Your task to perform on an android device: Open settings on Google Maps Image 0: 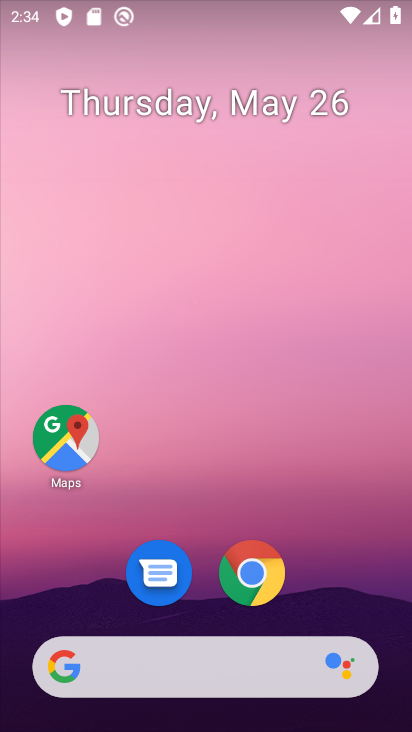
Step 0: press home button
Your task to perform on an android device: Open settings on Google Maps Image 1: 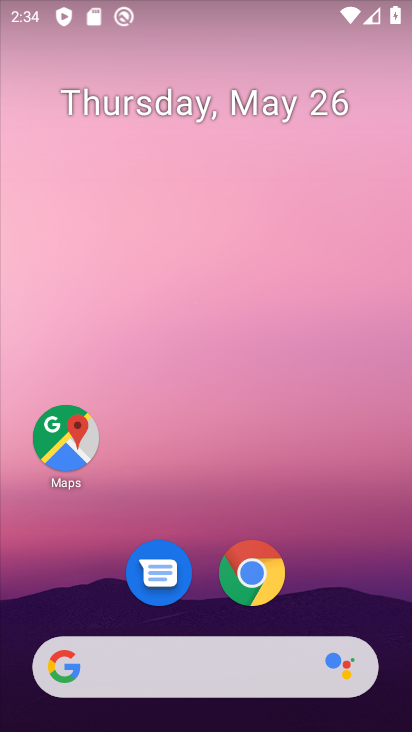
Step 1: click (84, 459)
Your task to perform on an android device: Open settings on Google Maps Image 2: 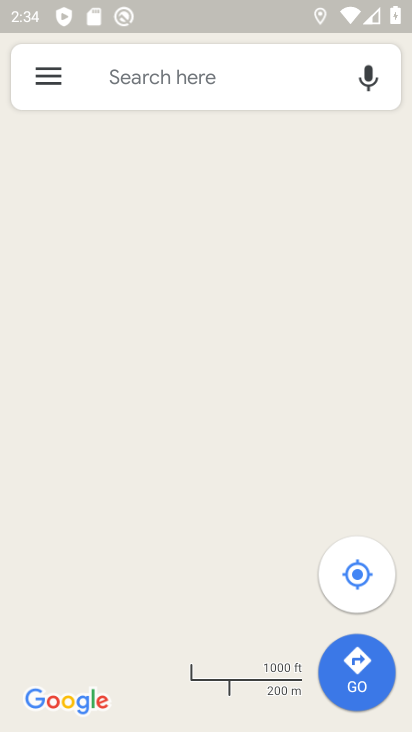
Step 2: click (51, 84)
Your task to perform on an android device: Open settings on Google Maps Image 3: 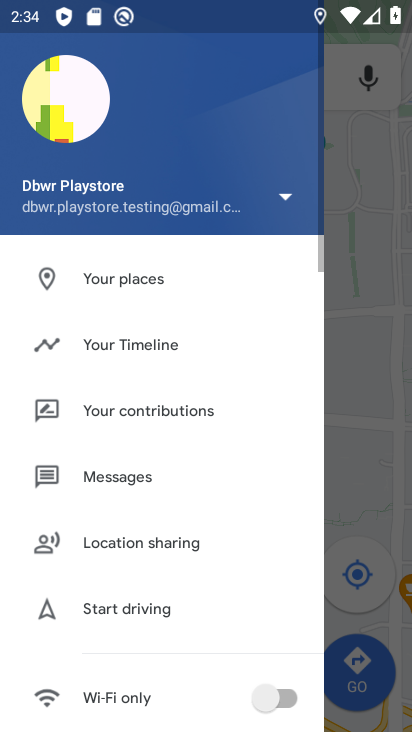
Step 3: drag from (128, 502) to (191, 149)
Your task to perform on an android device: Open settings on Google Maps Image 4: 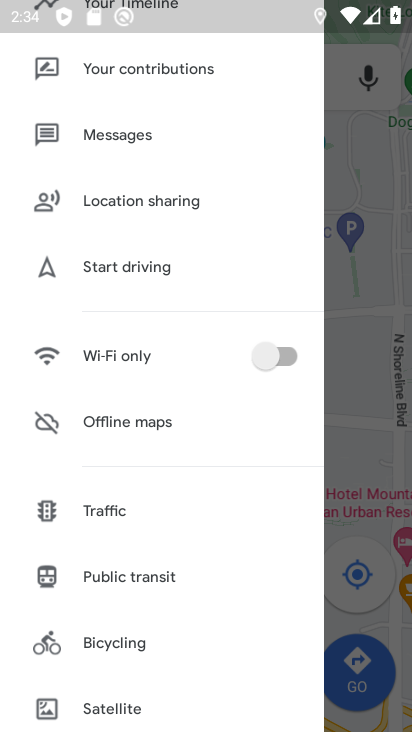
Step 4: drag from (124, 639) to (36, 41)
Your task to perform on an android device: Open settings on Google Maps Image 5: 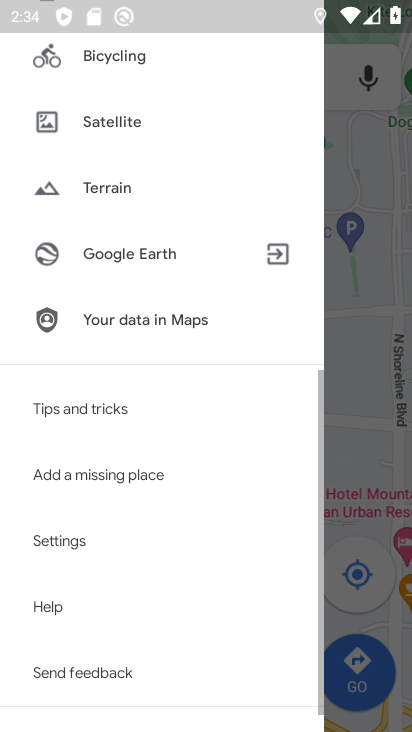
Step 5: click (43, 517)
Your task to perform on an android device: Open settings on Google Maps Image 6: 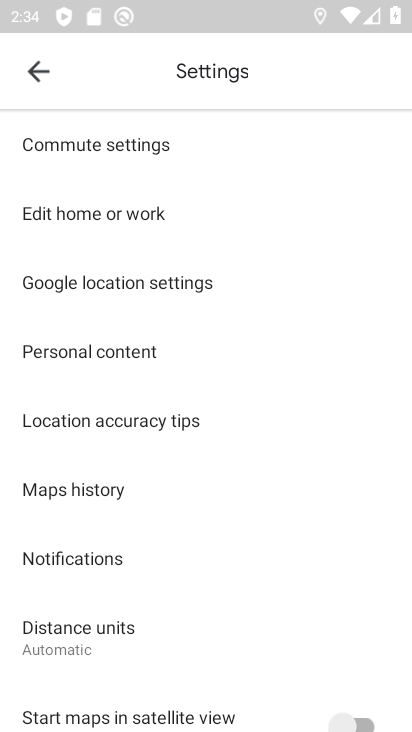
Step 6: task complete